Your task to perform on an android device: Google the capital of Brazil Image 0: 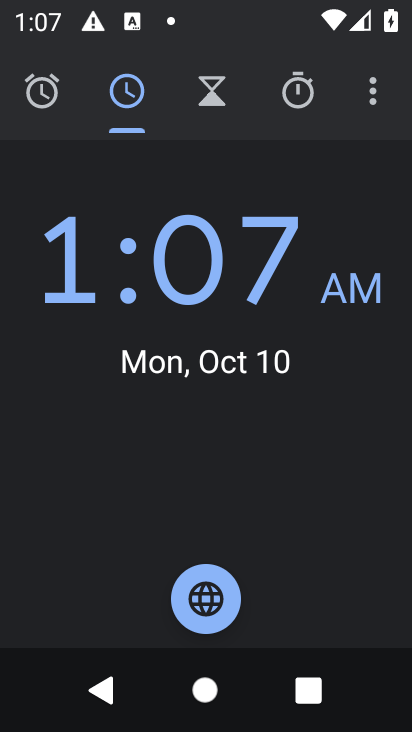
Step 0: press home button
Your task to perform on an android device: Google the capital of Brazil Image 1: 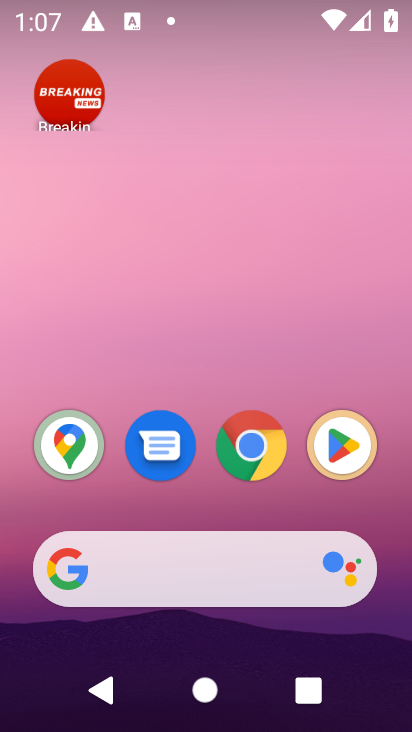
Step 1: click (71, 554)
Your task to perform on an android device: Google the capital of Brazil Image 2: 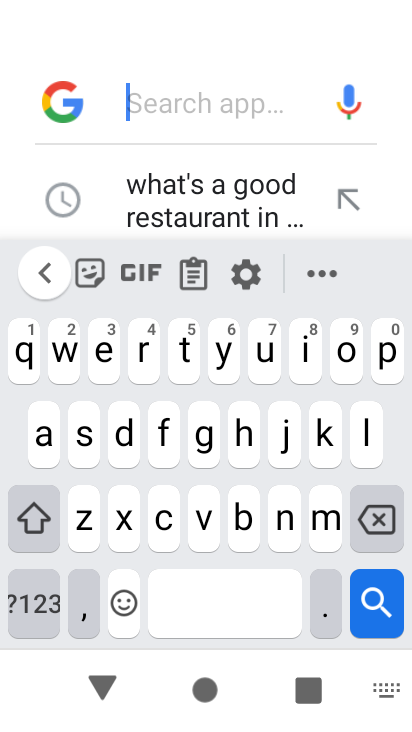
Step 2: type "capital of brazil ?"
Your task to perform on an android device: Google the capital of Brazil Image 3: 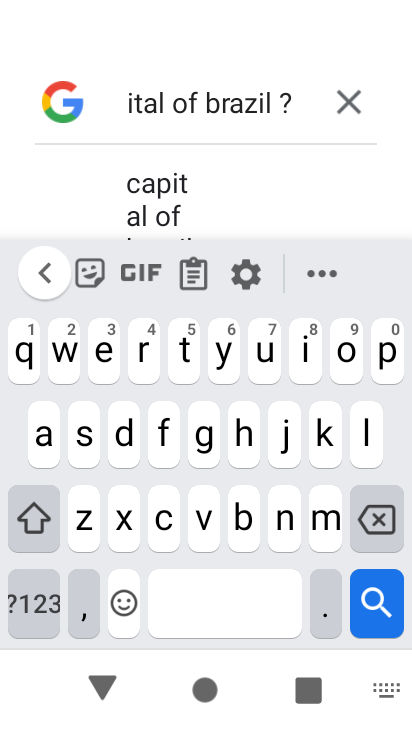
Step 3: click (215, 181)
Your task to perform on an android device: Google the capital of Brazil Image 4: 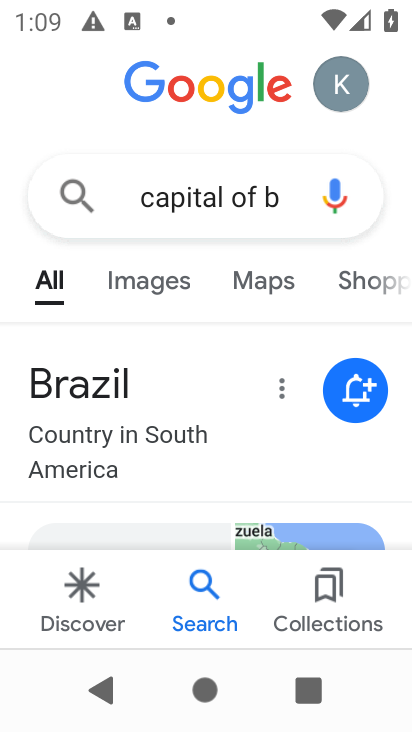
Step 4: task complete